Your task to perform on an android device: move an email to a new category in the gmail app Image 0: 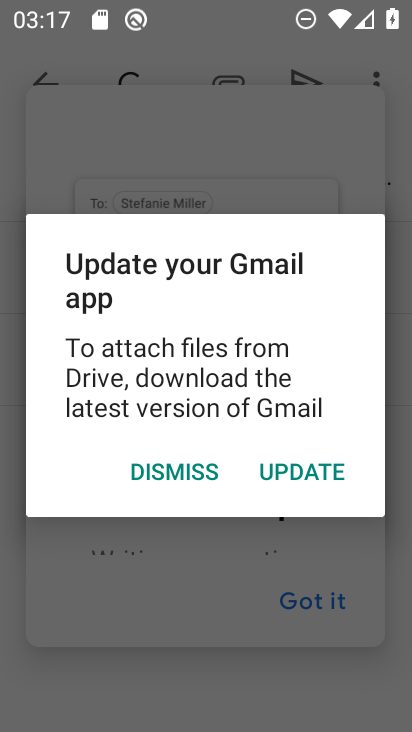
Step 0: press home button
Your task to perform on an android device: move an email to a new category in the gmail app Image 1: 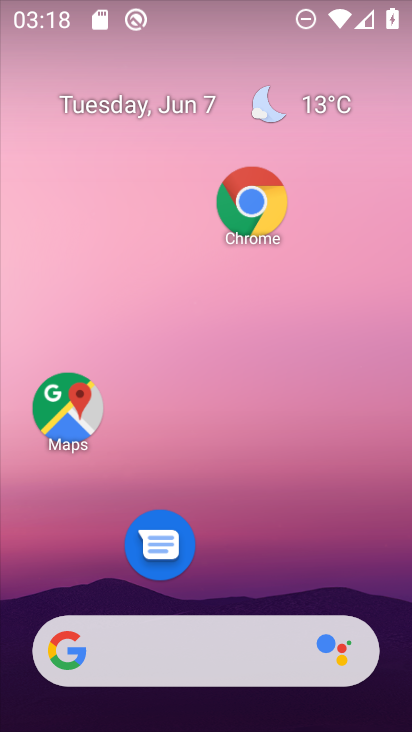
Step 1: drag from (275, 580) to (299, 243)
Your task to perform on an android device: move an email to a new category in the gmail app Image 2: 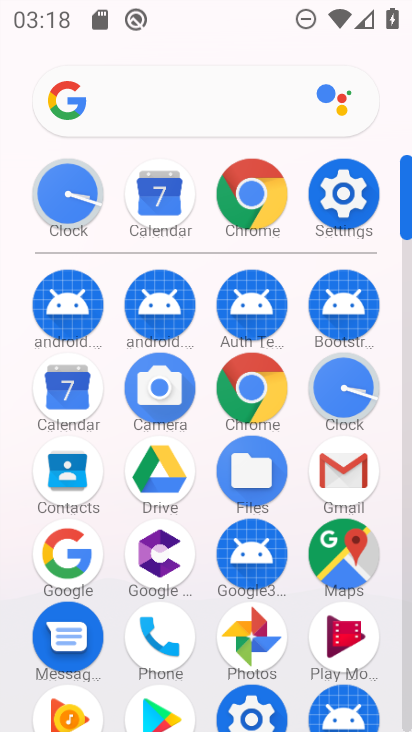
Step 2: click (325, 465)
Your task to perform on an android device: move an email to a new category in the gmail app Image 3: 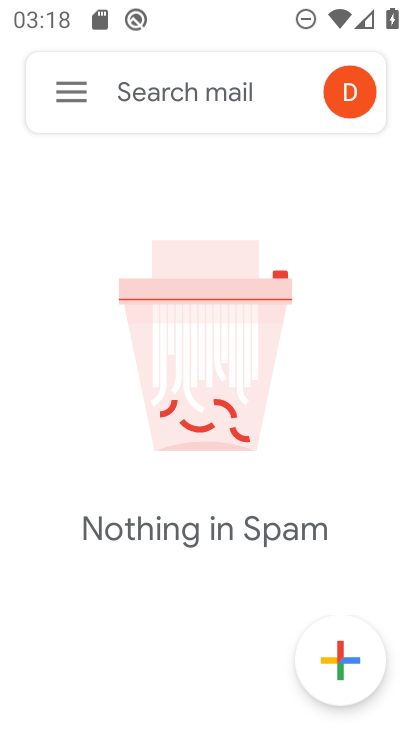
Step 3: click (75, 87)
Your task to perform on an android device: move an email to a new category in the gmail app Image 4: 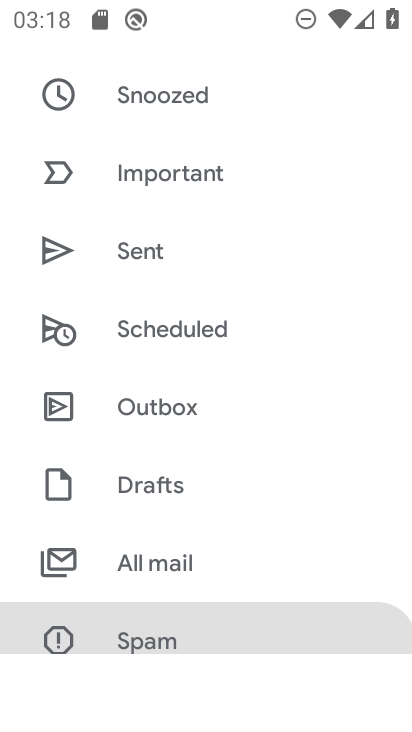
Step 4: drag from (179, 611) to (185, 288)
Your task to perform on an android device: move an email to a new category in the gmail app Image 5: 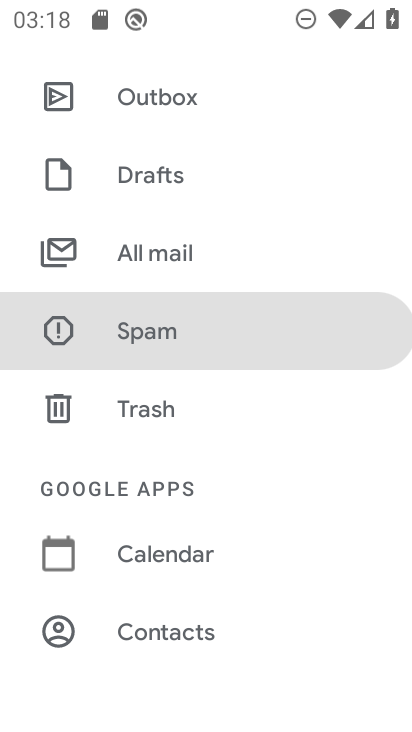
Step 5: drag from (195, 619) to (187, 233)
Your task to perform on an android device: move an email to a new category in the gmail app Image 6: 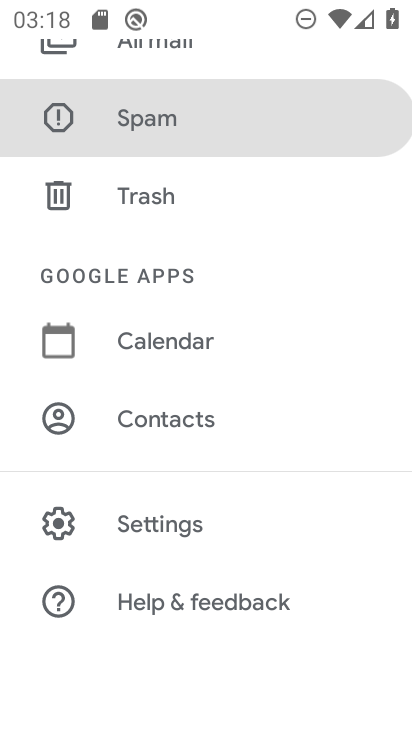
Step 6: drag from (162, 151) to (185, 617)
Your task to perform on an android device: move an email to a new category in the gmail app Image 7: 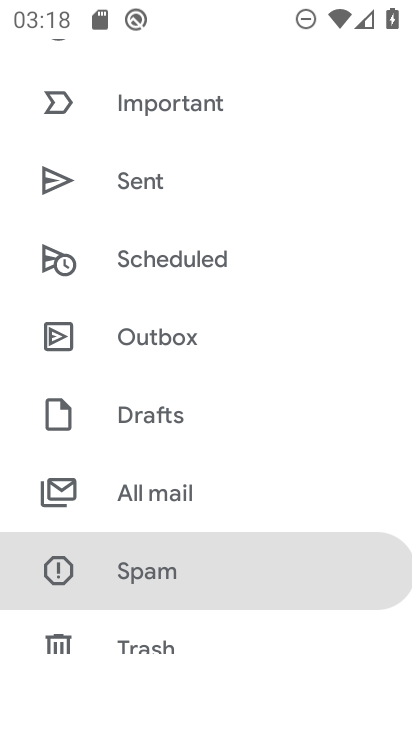
Step 7: click (176, 503)
Your task to perform on an android device: move an email to a new category in the gmail app Image 8: 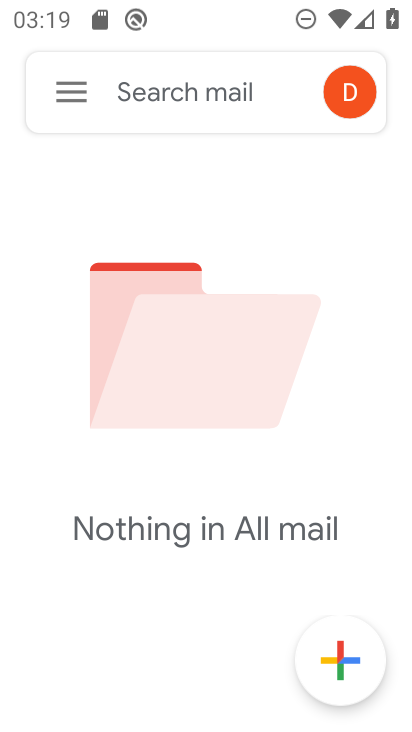
Step 8: task complete